Your task to perform on an android device: change notifications settings Image 0: 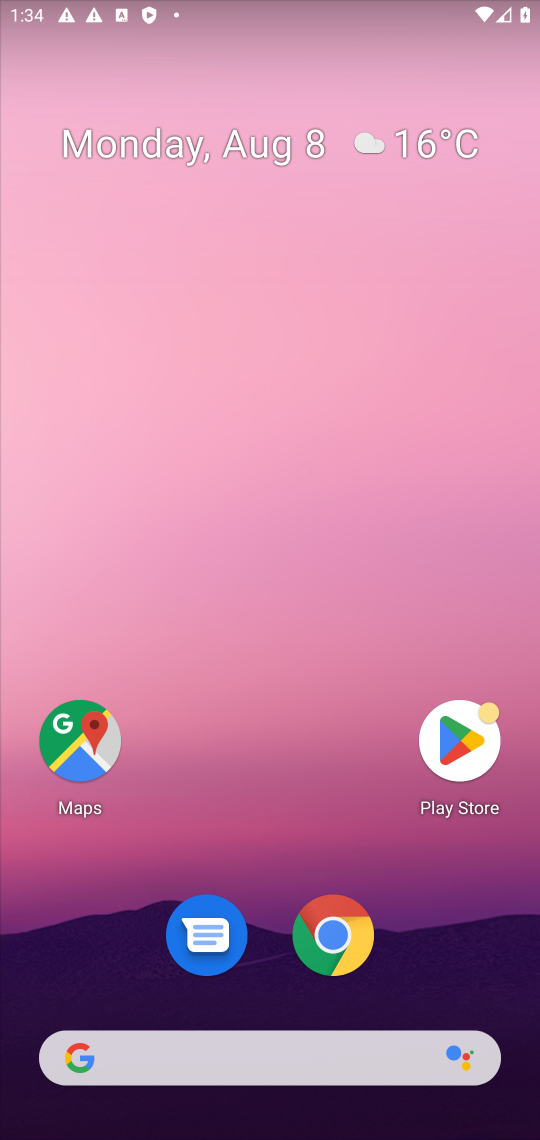
Step 0: drag from (358, 1056) to (334, 397)
Your task to perform on an android device: change notifications settings Image 1: 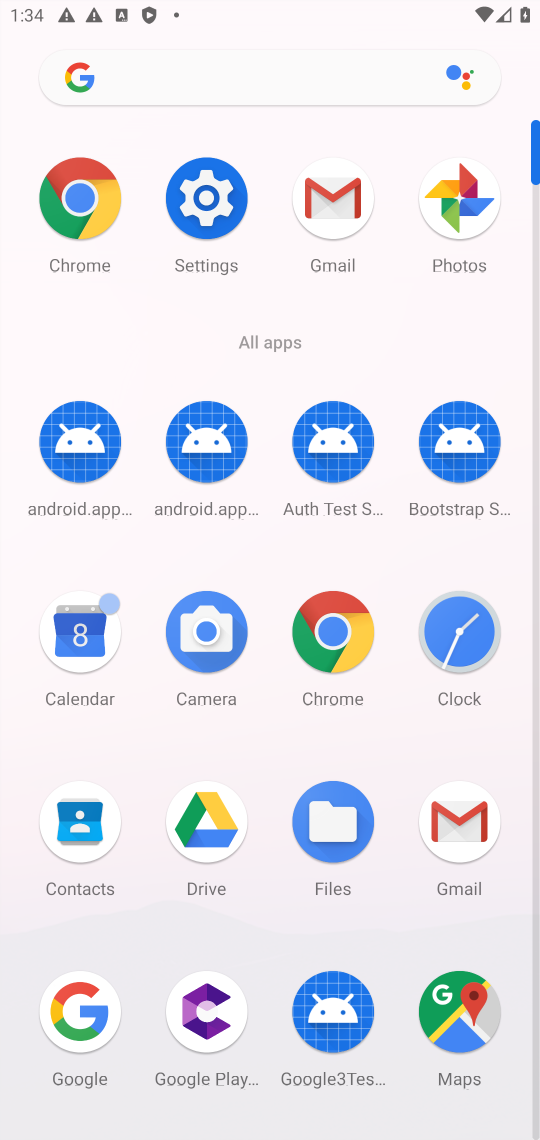
Step 1: click (192, 210)
Your task to perform on an android device: change notifications settings Image 2: 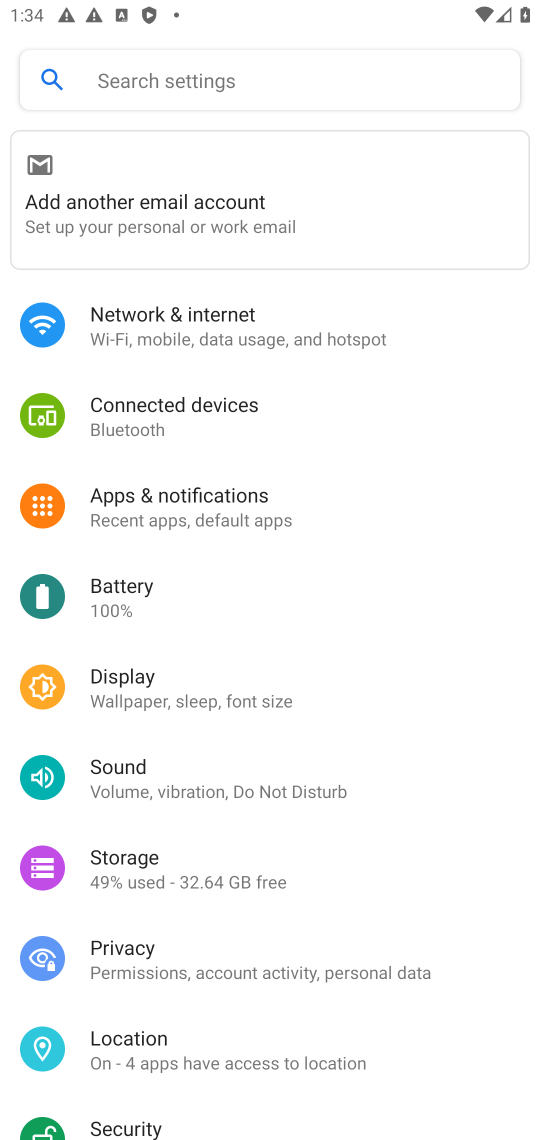
Step 2: click (175, 509)
Your task to perform on an android device: change notifications settings Image 3: 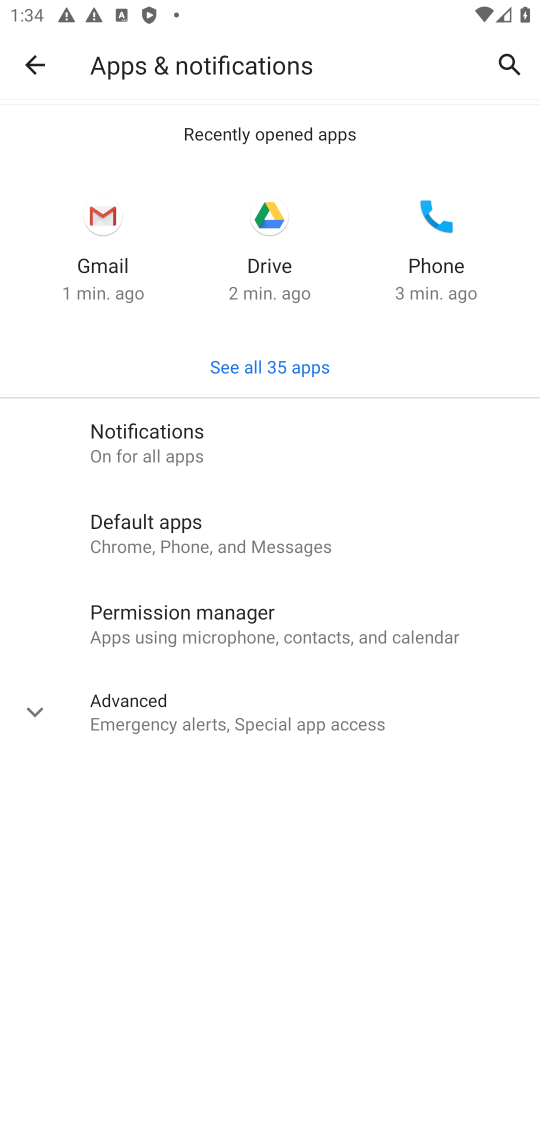
Step 3: click (134, 411)
Your task to perform on an android device: change notifications settings Image 4: 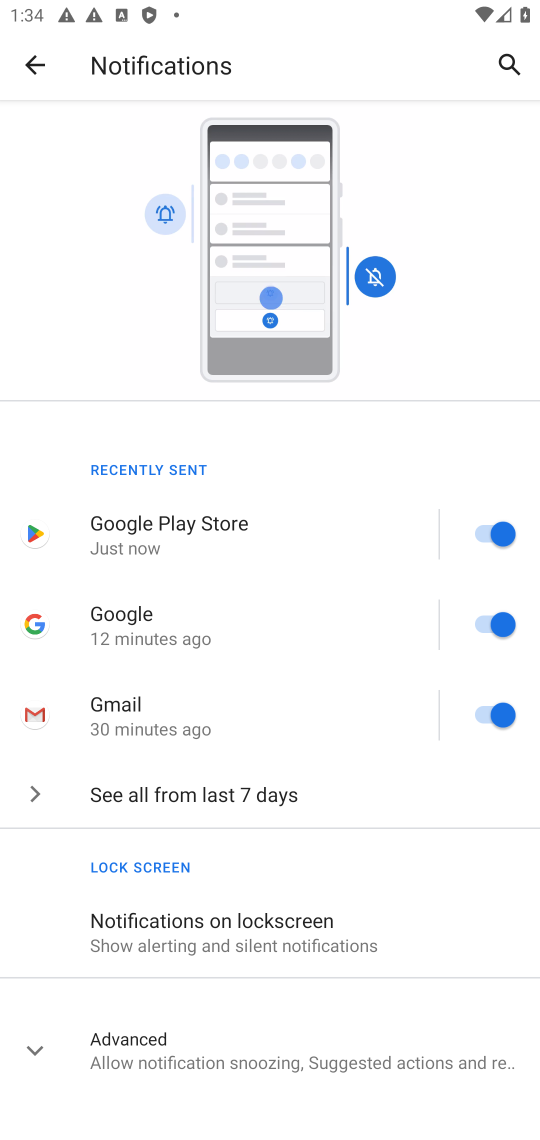
Step 4: click (487, 532)
Your task to perform on an android device: change notifications settings Image 5: 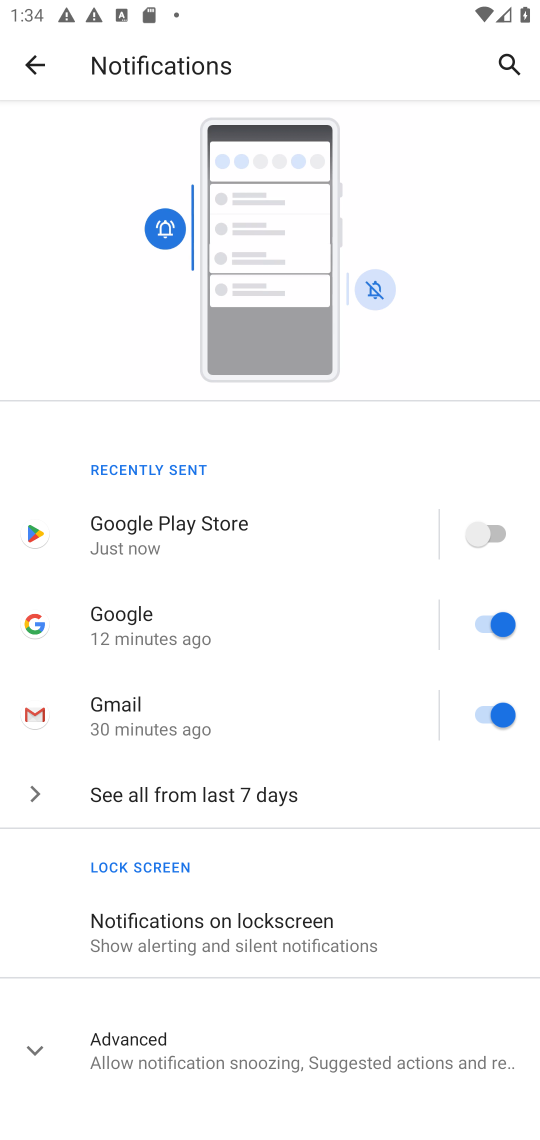
Step 5: task complete